Your task to perform on an android device: turn on sleep mode Image 0: 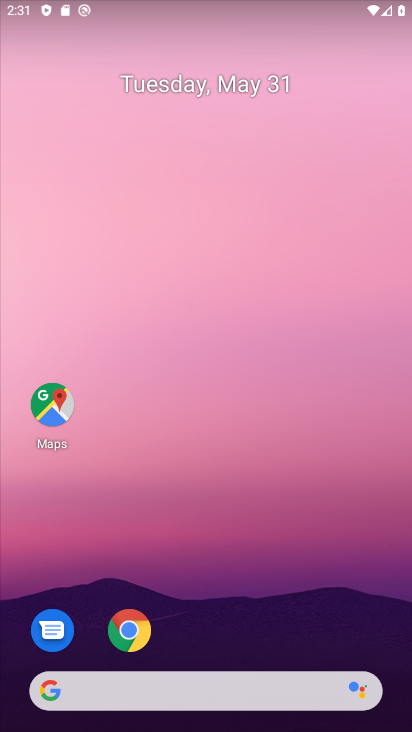
Step 0: drag from (206, 9) to (304, 710)
Your task to perform on an android device: turn on sleep mode Image 1: 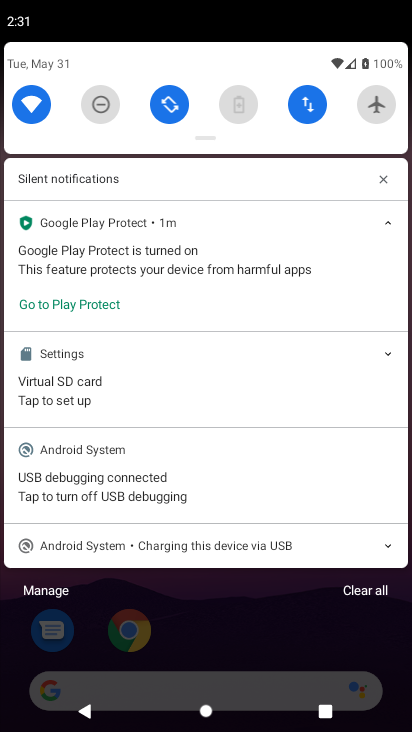
Step 1: drag from (226, 19) to (209, 643)
Your task to perform on an android device: turn on sleep mode Image 2: 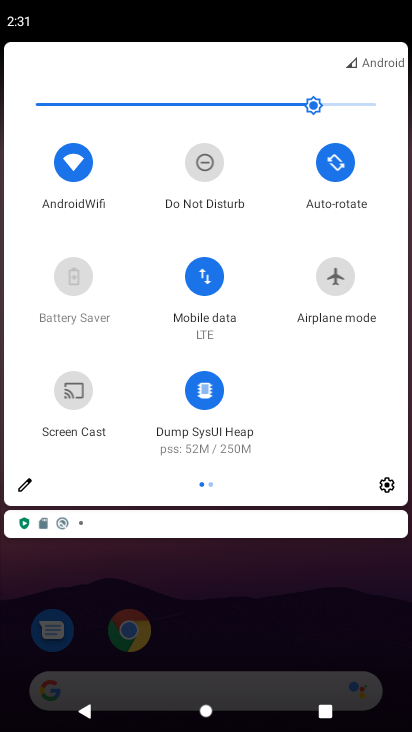
Step 2: drag from (203, 71) to (214, 615)
Your task to perform on an android device: turn on sleep mode Image 3: 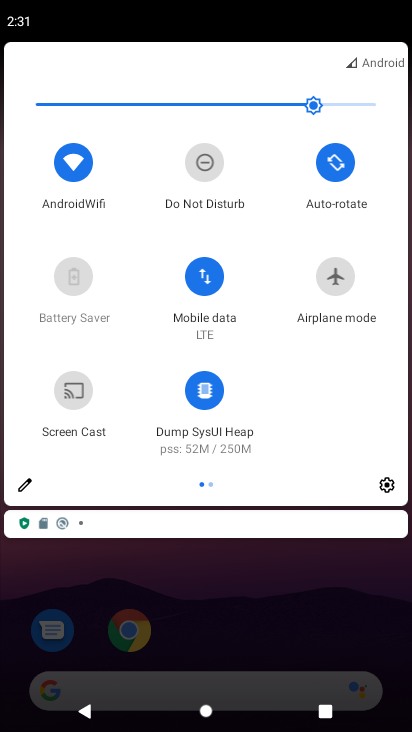
Step 3: click (386, 486)
Your task to perform on an android device: turn on sleep mode Image 4: 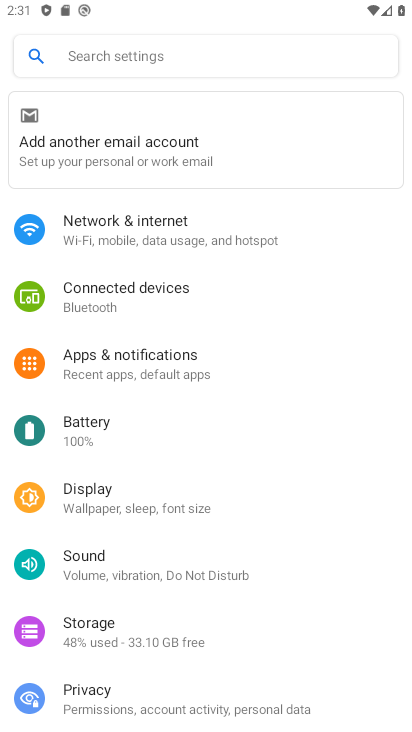
Step 4: task complete